Your task to perform on an android device: turn on bluetooth scan Image 0: 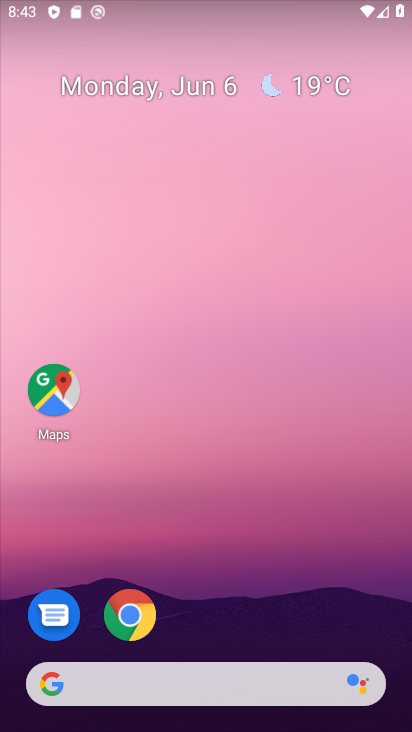
Step 0: click (231, 617)
Your task to perform on an android device: turn on bluetooth scan Image 1: 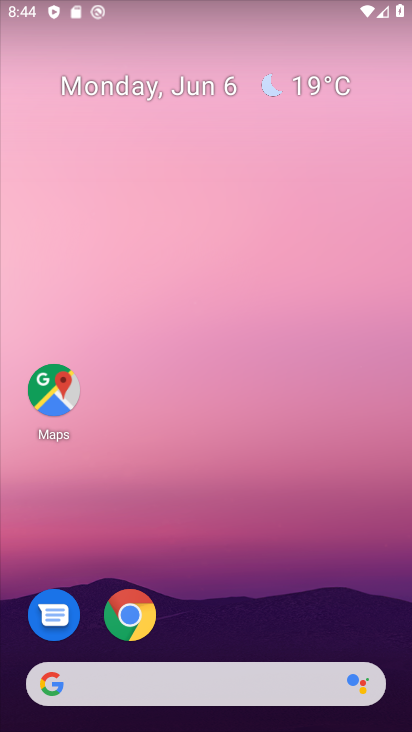
Step 1: click (231, 617)
Your task to perform on an android device: turn on bluetooth scan Image 2: 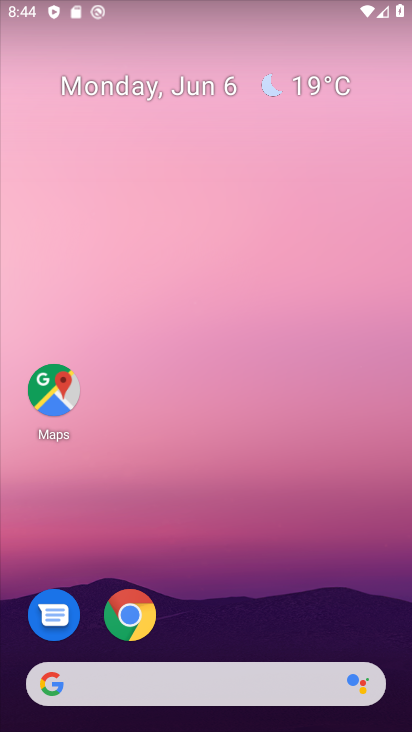
Step 2: drag from (231, 617) to (250, 63)
Your task to perform on an android device: turn on bluetooth scan Image 3: 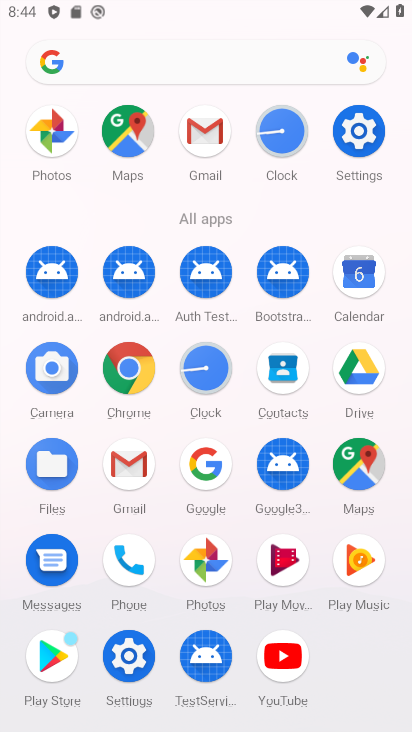
Step 3: click (358, 133)
Your task to perform on an android device: turn on bluetooth scan Image 4: 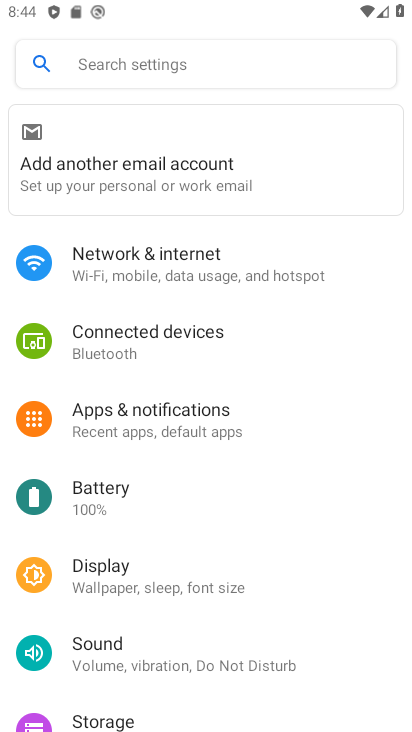
Step 4: task complete